Your task to perform on an android device: remove spam from my inbox in the gmail app Image 0: 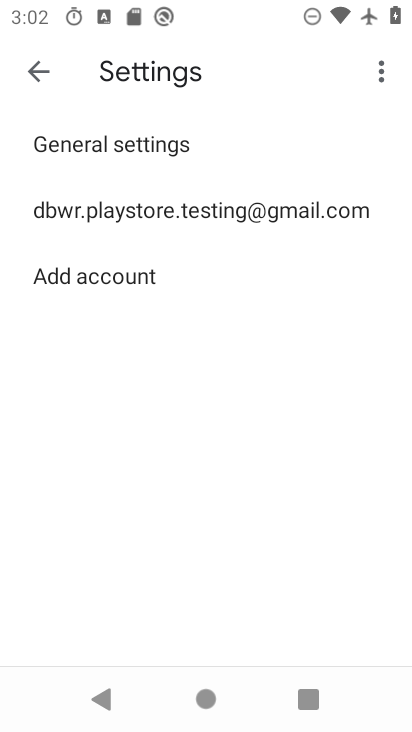
Step 0: press home button
Your task to perform on an android device: remove spam from my inbox in the gmail app Image 1: 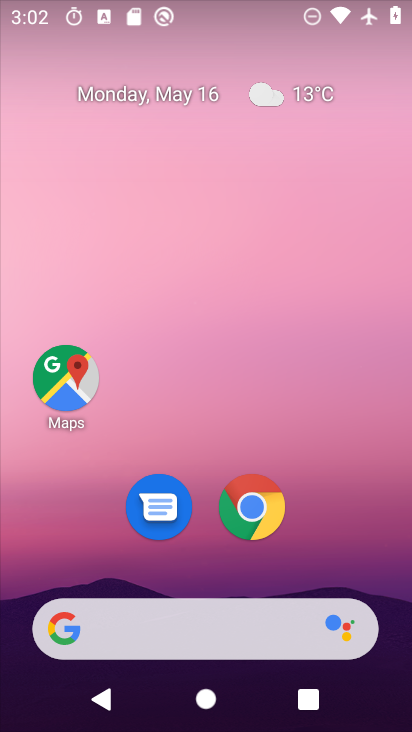
Step 1: drag from (238, 573) to (269, 137)
Your task to perform on an android device: remove spam from my inbox in the gmail app Image 2: 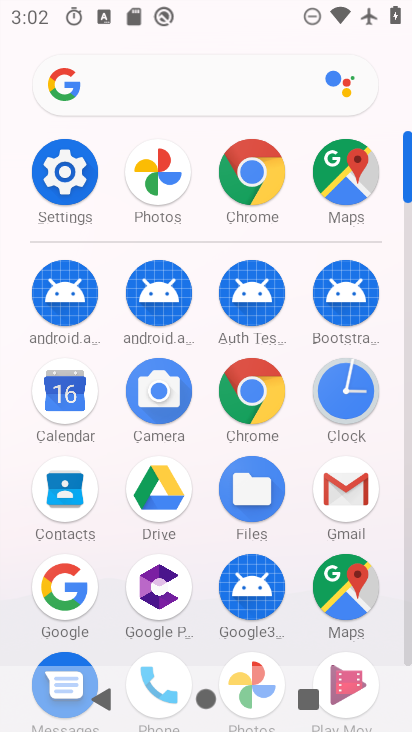
Step 2: click (329, 497)
Your task to perform on an android device: remove spam from my inbox in the gmail app Image 3: 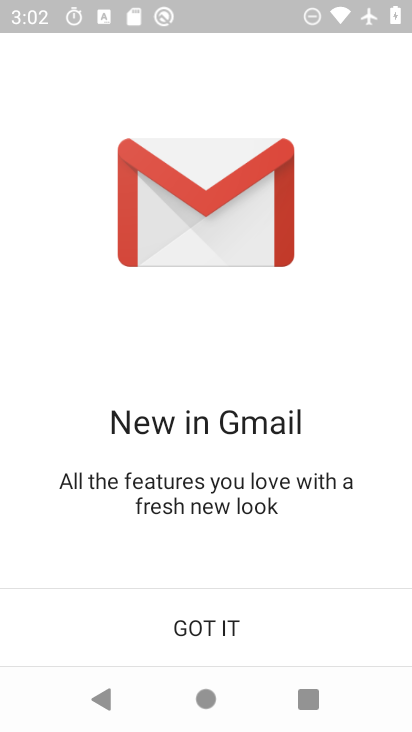
Step 3: click (271, 632)
Your task to perform on an android device: remove spam from my inbox in the gmail app Image 4: 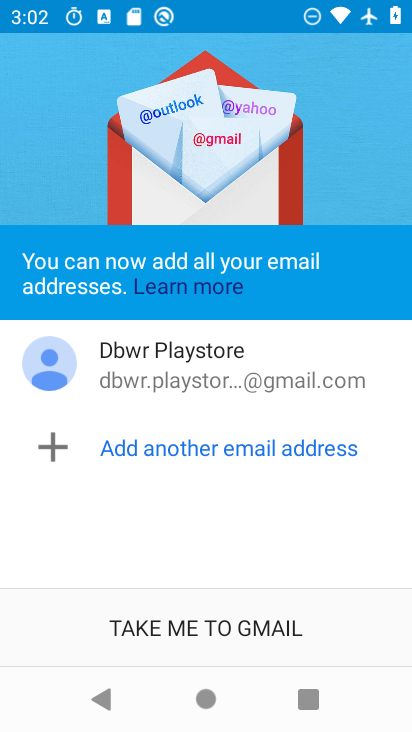
Step 4: click (278, 638)
Your task to perform on an android device: remove spam from my inbox in the gmail app Image 5: 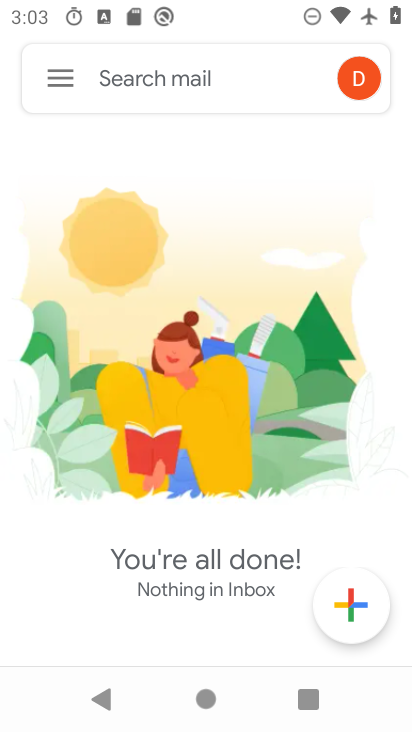
Step 5: click (60, 77)
Your task to perform on an android device: remove spam from my inbox in the gmail app Image 6: 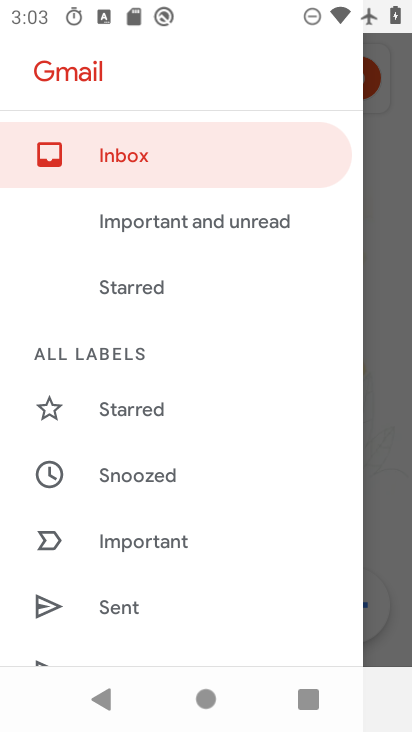
Step 6: click (202, 171)
Your task to perform on an android device: remove spam from my inbox in the gmail app Image 7: 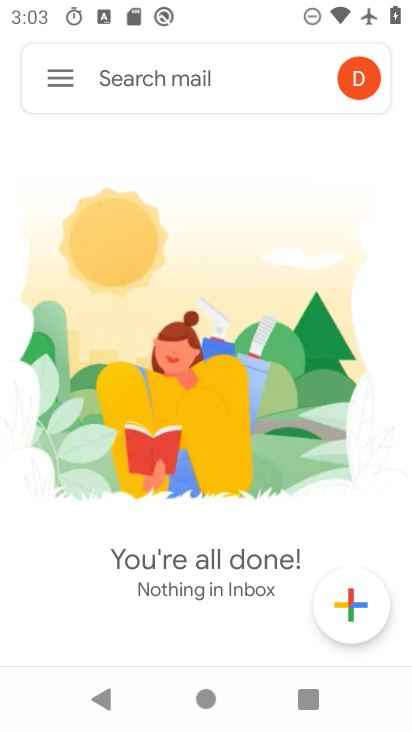
Step 7: task complete